Your task to perform on an android device: turn on showing notifications on the lock screen Image 0: 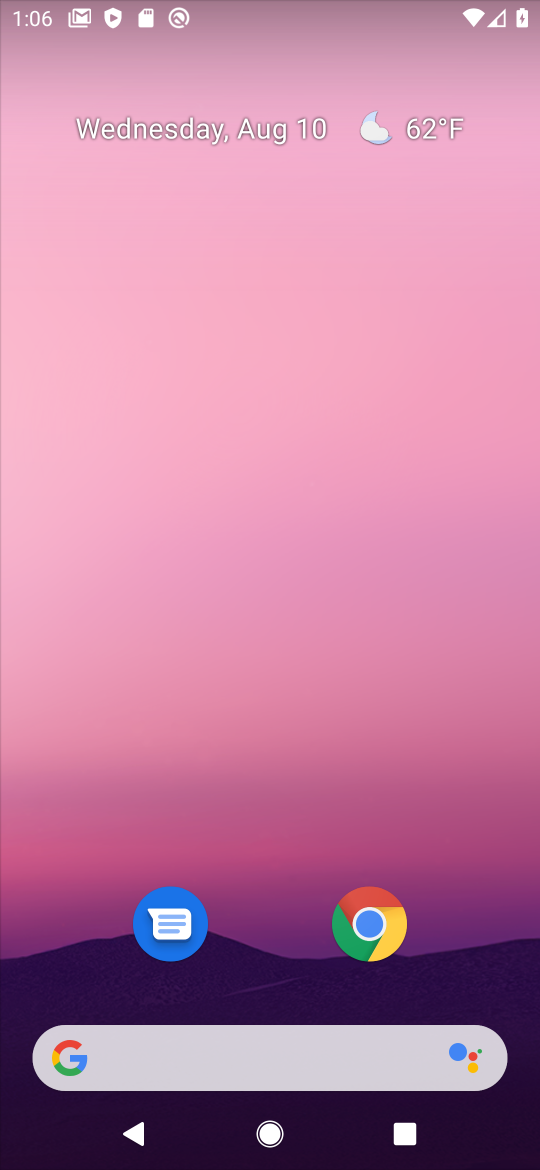
Step 0: drag from (349, 774) to (358, 260)
Your task to perform on an android device: turn on showing notifications on the lock screen Image 1: 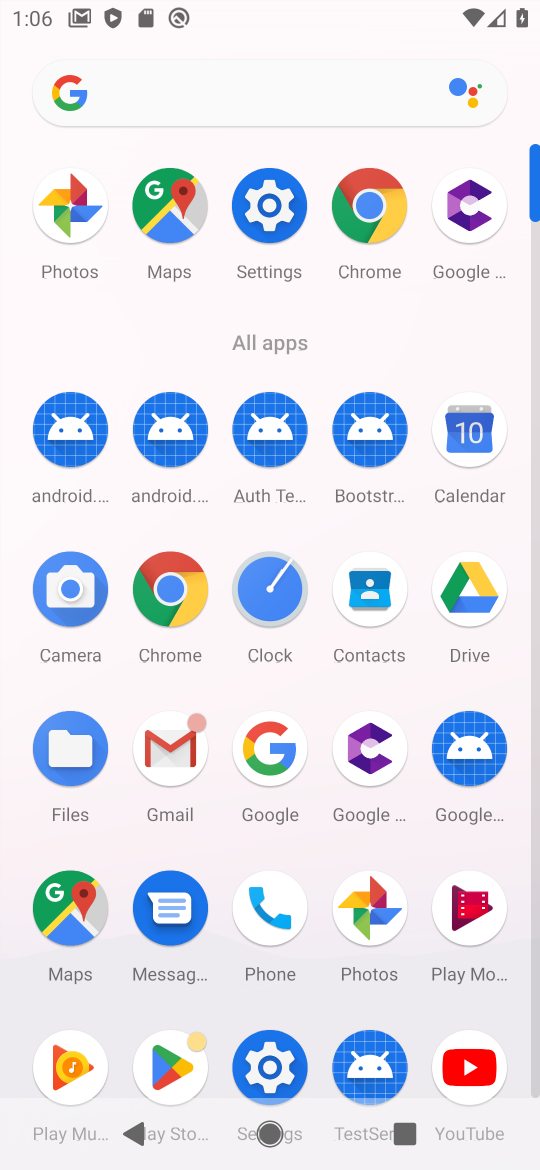
Step 1: task complete